Your task to perform on an android device: check google app version Image 0: 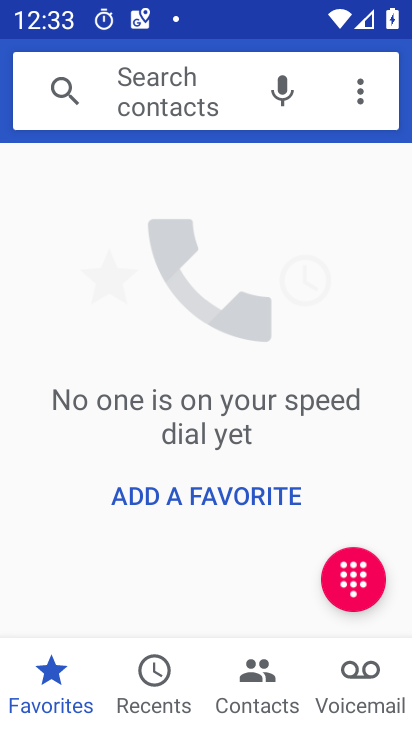
Step 0: press home button
Your task to perform on an android device: check google app version Image 1: 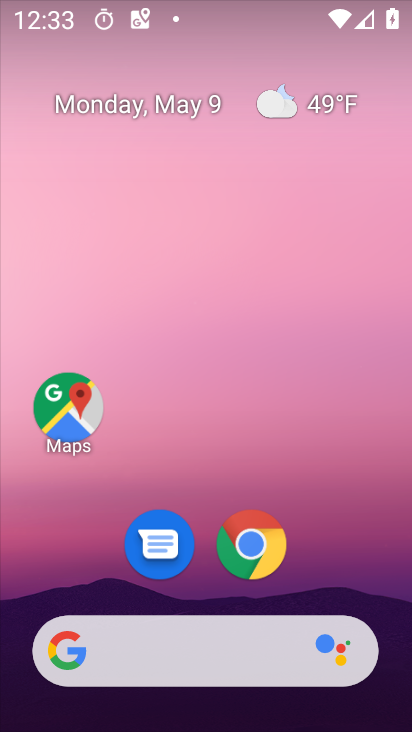
Step 1: drag from (309, 593) to (274, 14)
Your task to perform on an android device: check google app version Image 2: 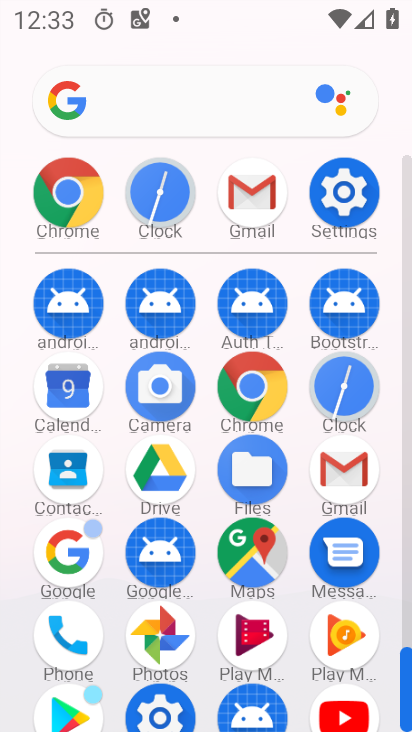
Step 2: click (253, 400)
Your task to perform on an android device: check google app version Image 3: 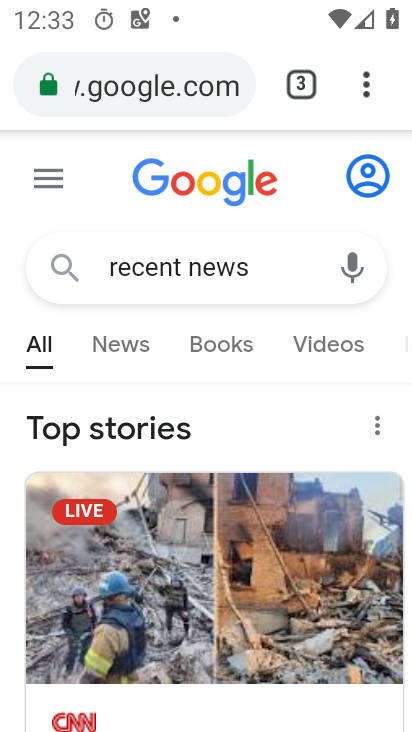
Step 3: task complete